Your task to perform on an android device: move an email to a new category in the gmail app Image 0: 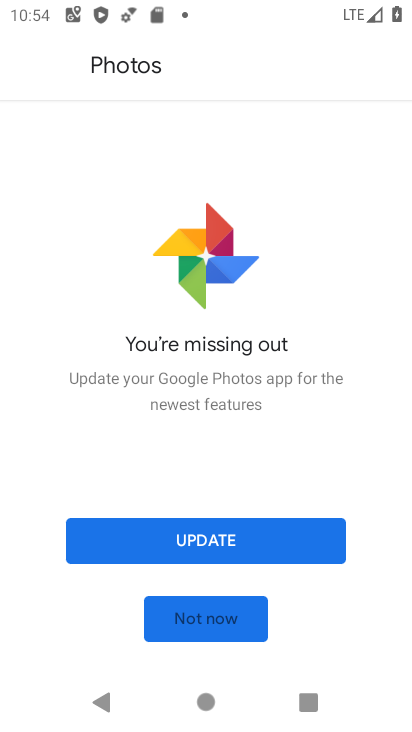
Step 0: press home button
Your task to perform on an android device: move an email to a new category in the gmail app Image 1: 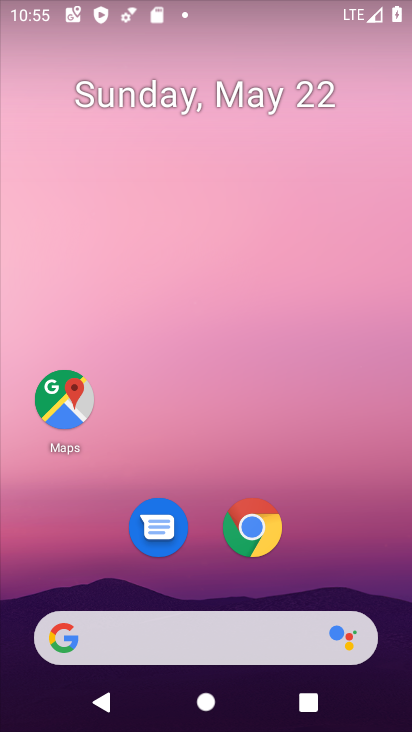
Step 1: drag from (349, 575) to (340, 81)
Your task to perform on an android device: move an email to a new category in the gmail app Image 2: 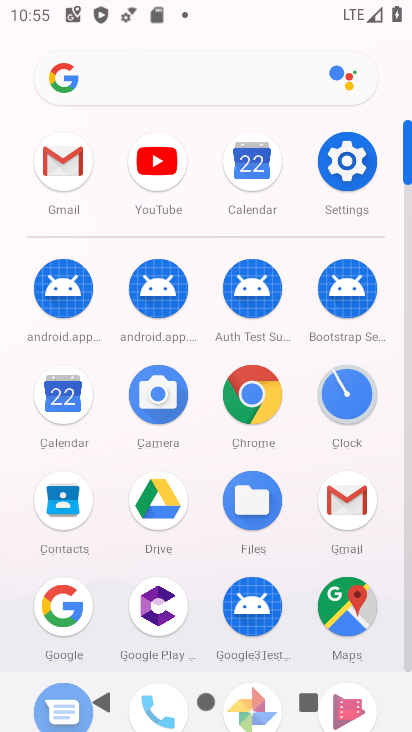
Step 2: click (94, 169)
Your task to perform on an android device: move an email to a new category in the gmail app Image 3: 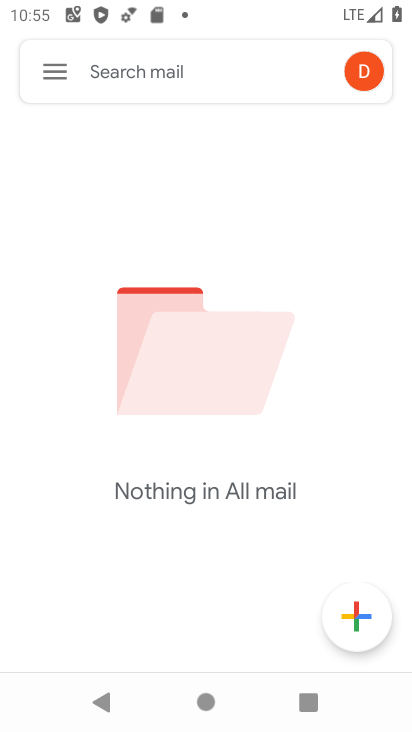
Step 3: click (57, 86)
Your task to perform on an android device: move an email to a new category in the gmail app Image 4: 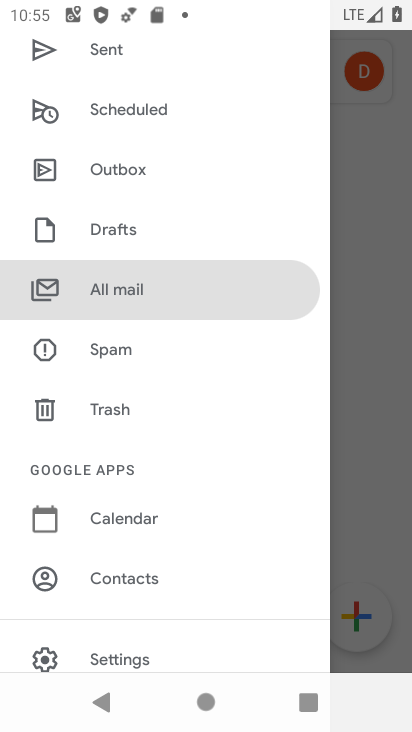
Step 4: click (184, 297)
Your task to perform on an android device: move an email to a new category in the gmail app Image 5: 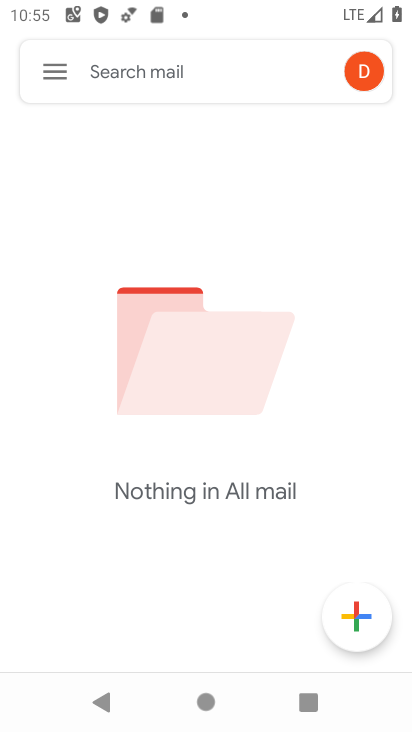
Step 5: task complete